Your task to perform on an android device: check android version Image 0: 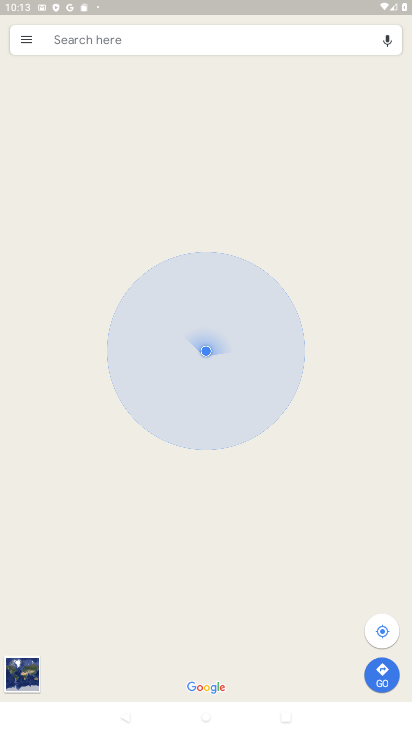
Step 0: press home button
Your task to perform on an android device: check android version Image 1: 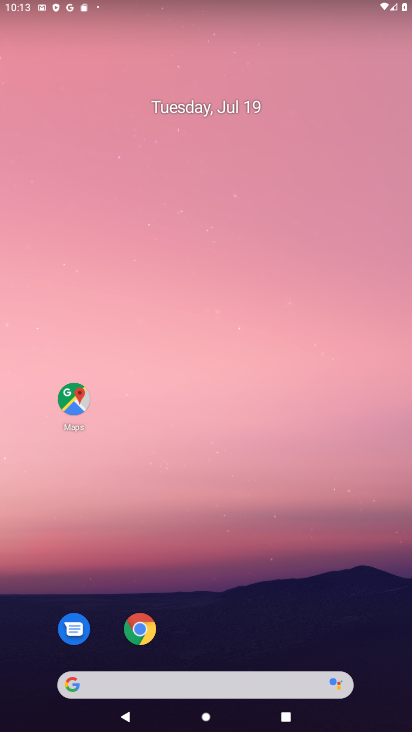
Step 1: drag from (233, 645) to (285, 197)
Your task to perform on an android device: check android version Image 2: 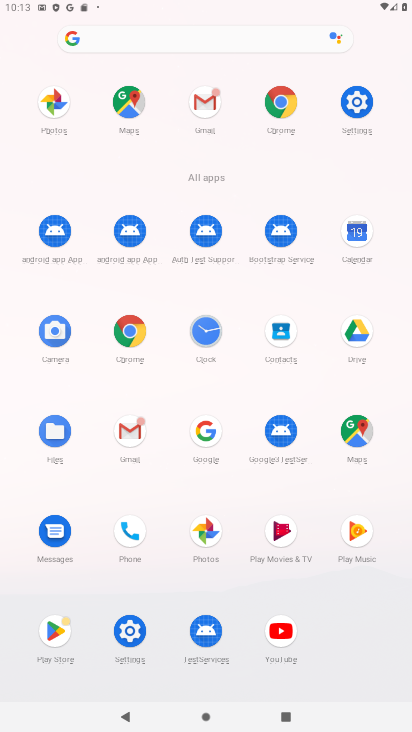
Step 2: click (126, 627)
Your task to perform on an android device: check android version Image 3: 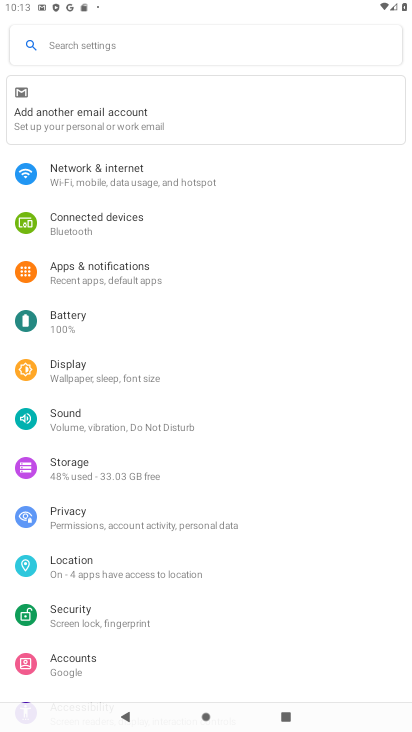
Step 3: drag from (212, 650) to (248, 229)
Your task to perform on an android device: check android version Image 4: 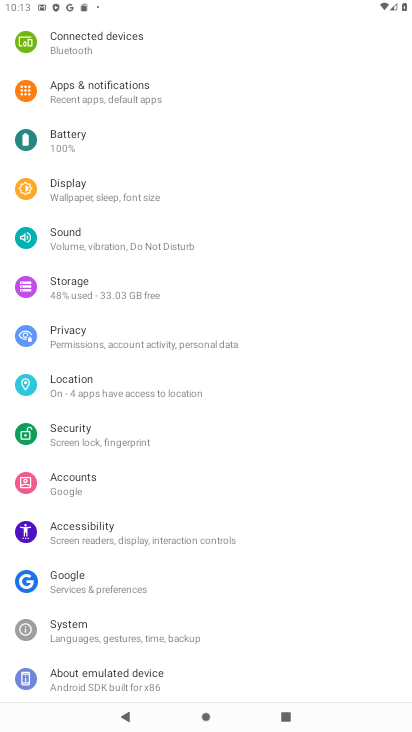
Step 4: click (138, 691)
Your task to perform on an android device: check android version Image 5: 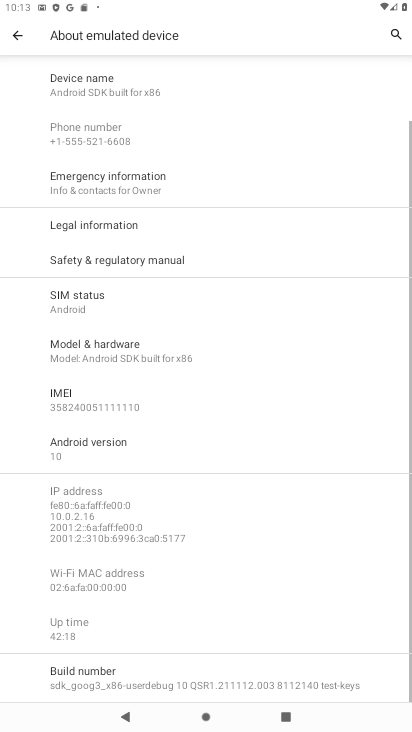
Step 5: click (131, 452)
Your task to perform on an android device: check android version Image 6: 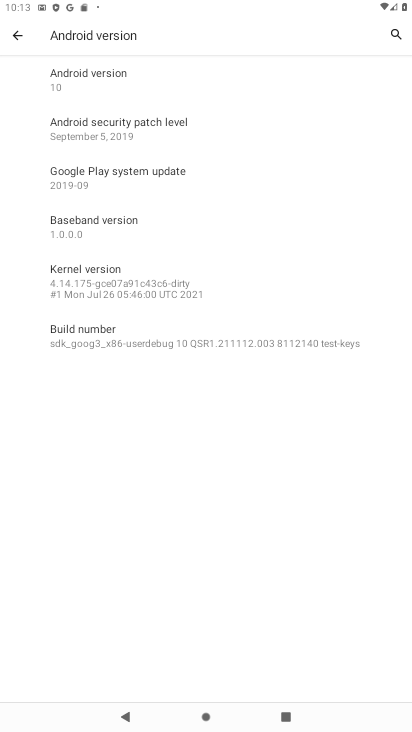
Step 6: task complete